Your task to perform on an android device: Go to CNN.com Image 0: 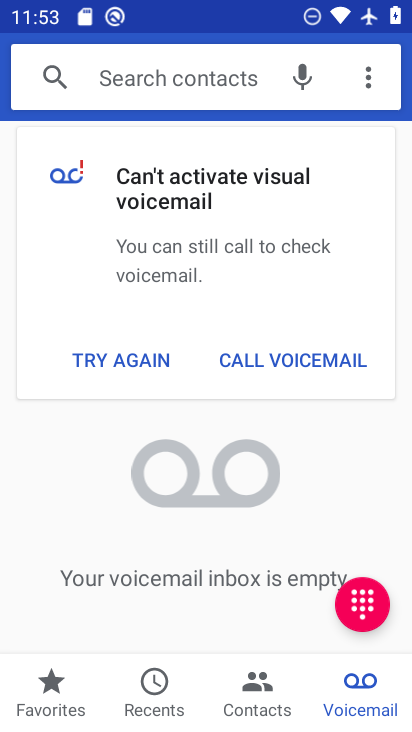
Step 0: press home button
Your task to perform on an android device: Go to CNN.com Image 1: 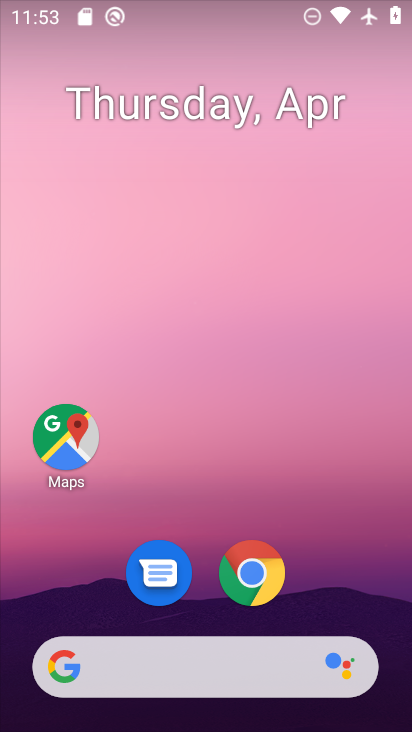
Step 1: click (169, 672)
Your task to perform on an android device: Go to CNN.com Image 2: 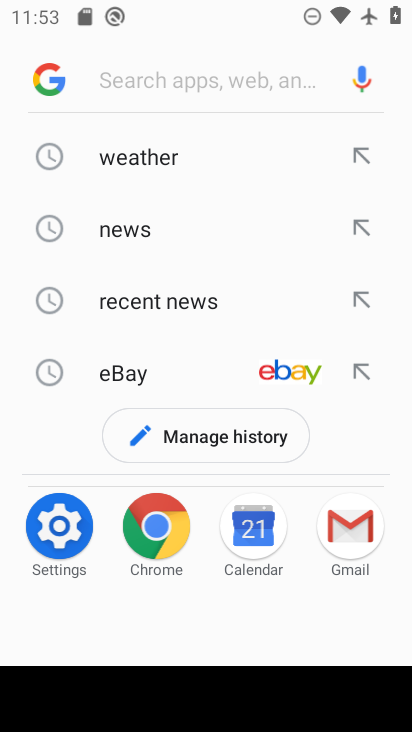
Step 2: click (115, 85)
Your task to perform on an android device: Go to CNN.com Image 3: 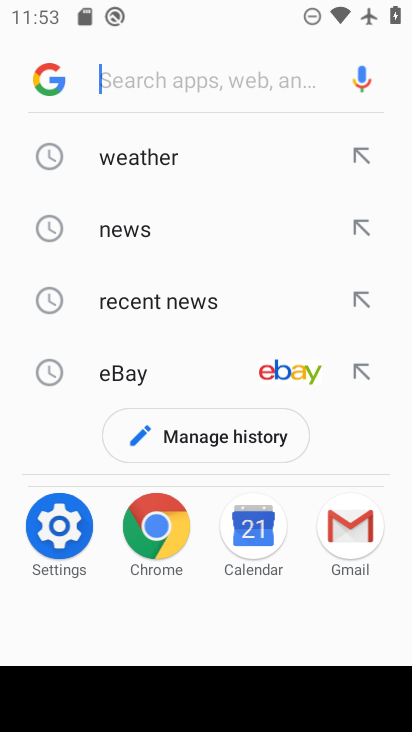
Step 3: type "cnn.com"
Your task to perform on an android device: Go to CNN.com Image 4: 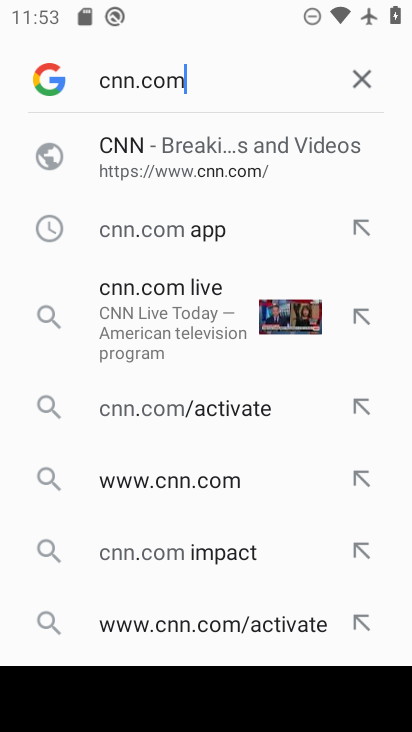
Step 4: click (146, 166)
Your task to perform on an android device: Go to CNN.com Image 5: 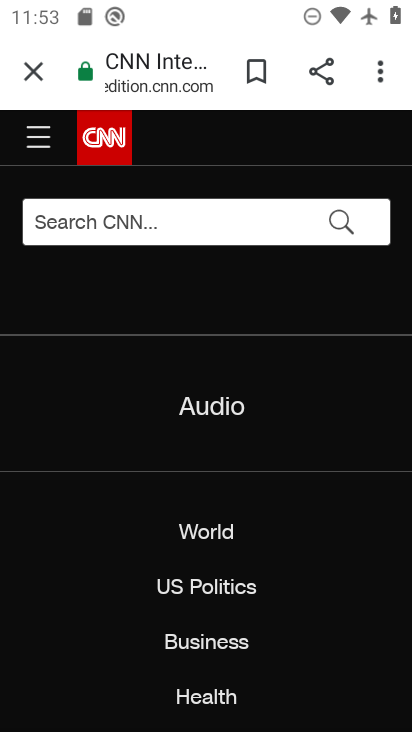
Step 5: task complete